Your task to perform on an android device: turn notification dots off Image 0: 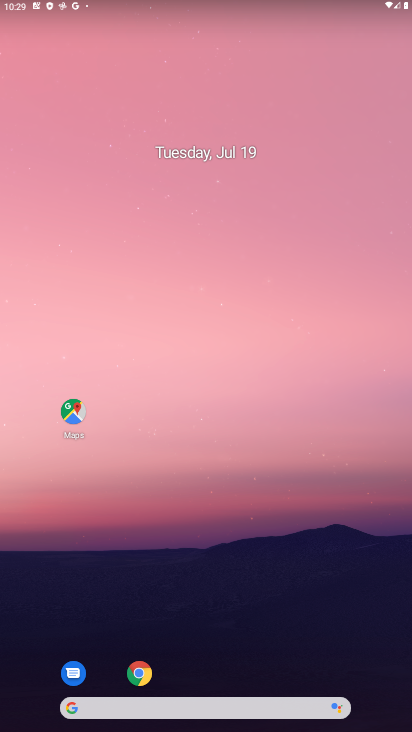
Step 0: drag from (202, 684) to (200, 231)
Your task to perform on an android device: turn notification dots off Image 1: 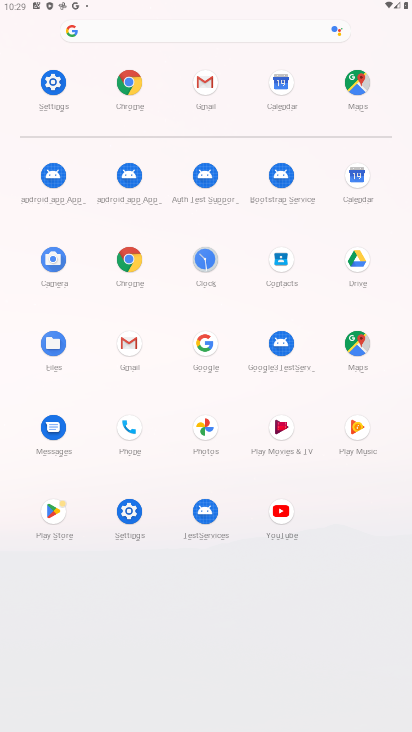
Step 1: click (59, 86)
Your task to perform on an android device: turn notification dots off Image 2: 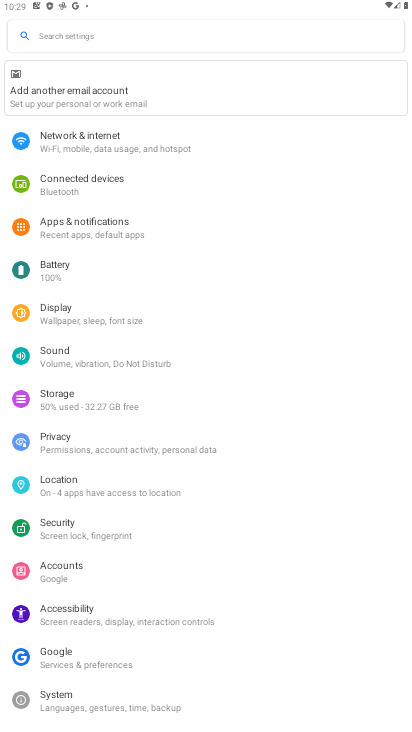
Step 2: click (165, 230)
Your task to perform on an android device: turn notification dots off Image 3: 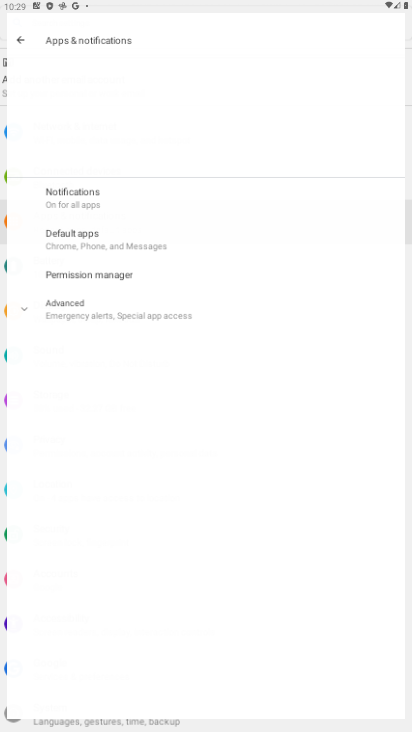
Step 3: task complete